Your task to perform on an android device: turn on the 12-hour format for clock Image 0: 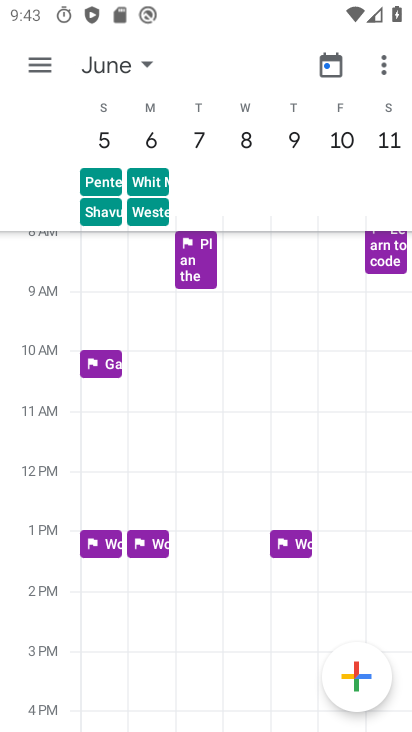
Step 0: press home button
Your task to perform on an android device: turn on the 12-hour format for clock Image 1: 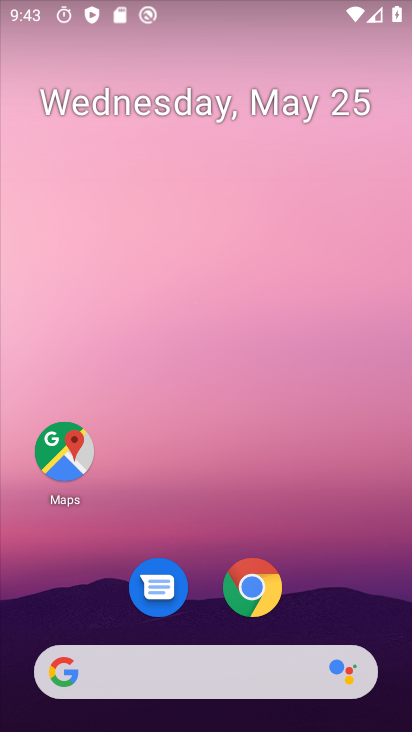
Step 1: drag from (214, 623) to (219, 64)
Your task to perform on an android device: turn on the 12-hour format for clock Image 2: 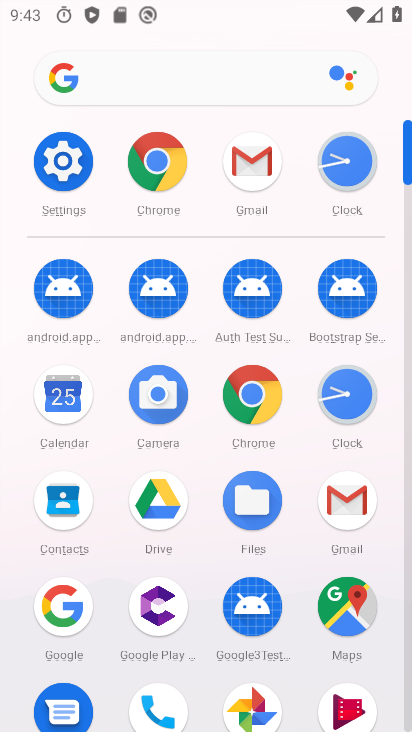
Step 2: click (352, 412)
Your task to perform on an android device: turn on the 12-hour format for clock Image 3: 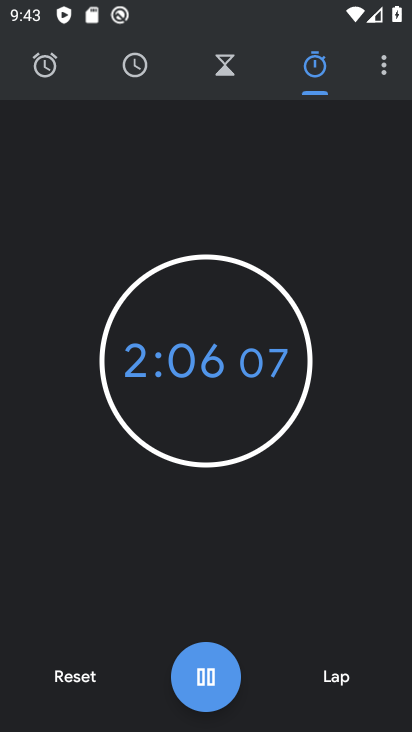
Step 3: click (73, 678)
Your task to perform on an android device: turn on the 12-hour format for clock Image 4: 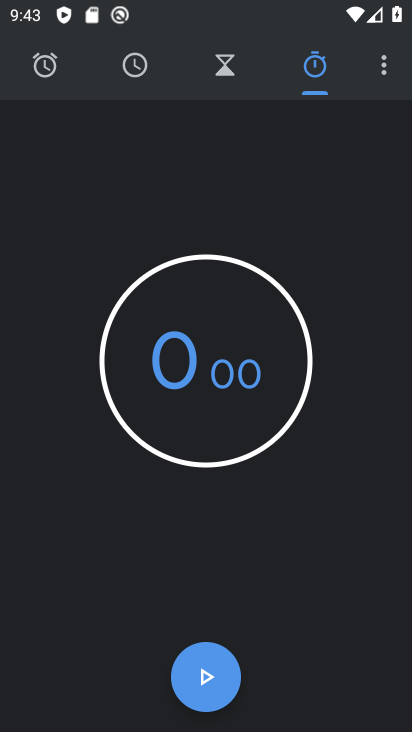
Step 4: press home button
Your task to perform on an android device: turn on the 12-hour format for clock Image 5: 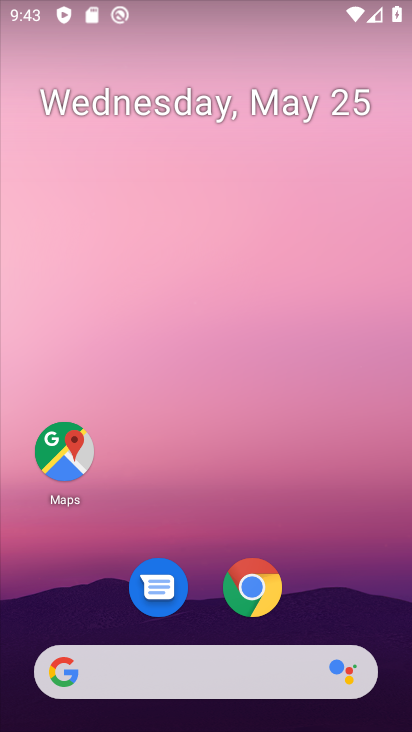
Step 5: drag from (191, 602) to (268, 7)
Your task to perform on an android device: turn on the 12-hour format for clock Image 6: 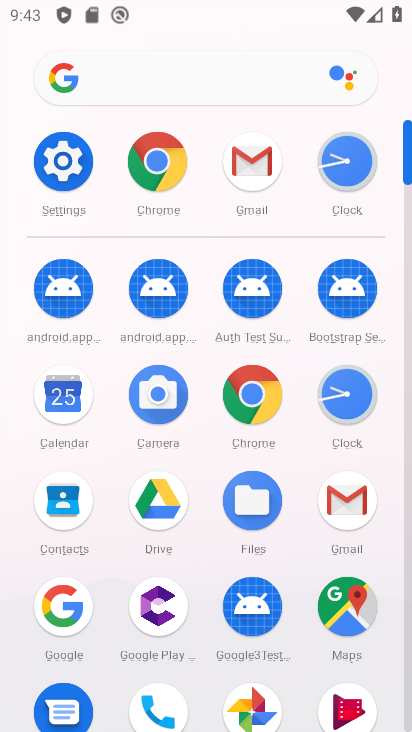
Step 6: click (66, 165)
Your task to perform on an android device: turn on the 12-hour format for clock Image 7: 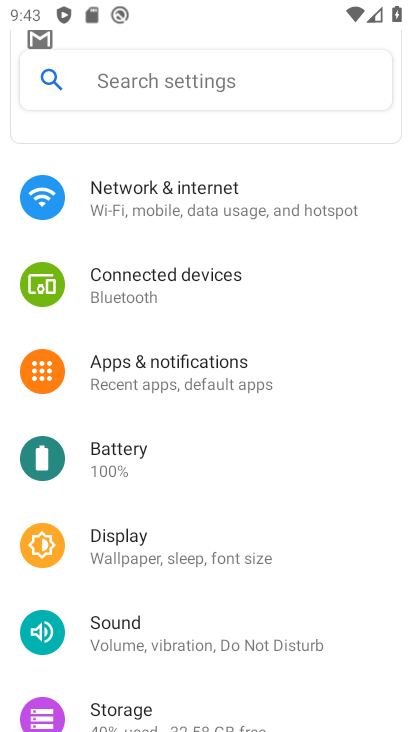
Step 7: drag from (200, 597) to (199, 228)
Your task to perform on an android device: turn on the 12-hour format for clock Image 8: 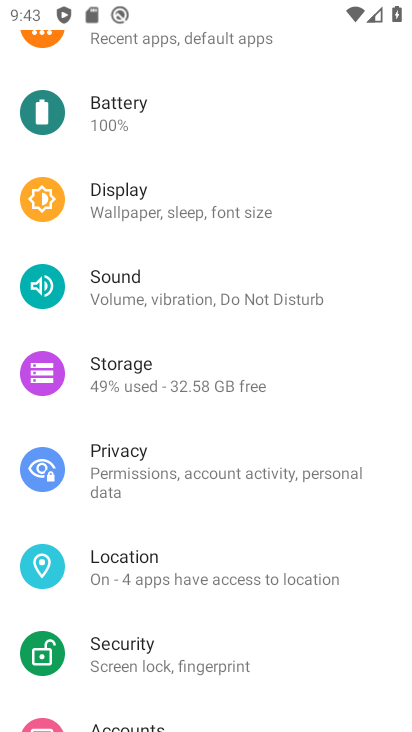
Step 8: drag from (165, 541) to (236, 131)
Your task to perform on an android device: turn on the 12-hour format for clock Image 9: 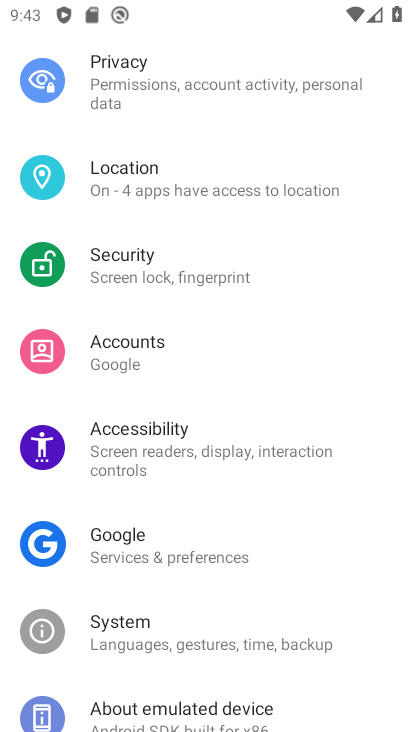
Step 9: drag from (252, 617) to (305, 343)
Your task to perform on an android device: turn on the 12-hour format for clock Image 10: 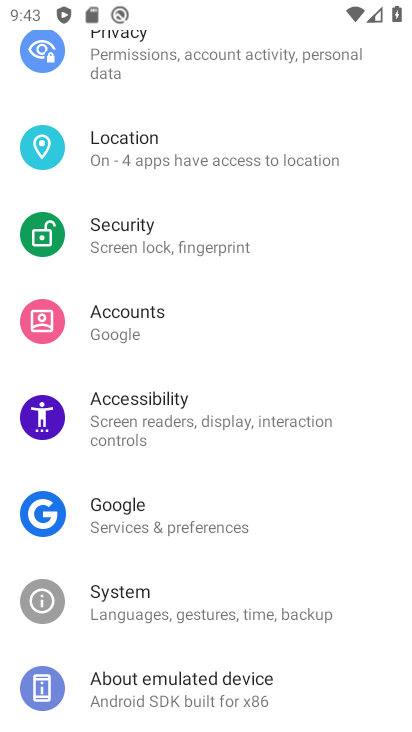
Step 10: click (171, 619)
Your task to perform on an android device: turn on the 12-hour format for clock Image 11: 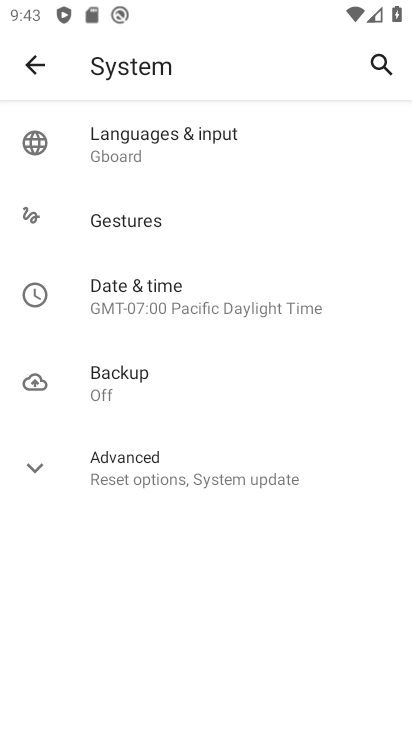
Step 11: click (241, 289)
Your task to perform on an android device: turn on the 12-hour format for clock Image 12: 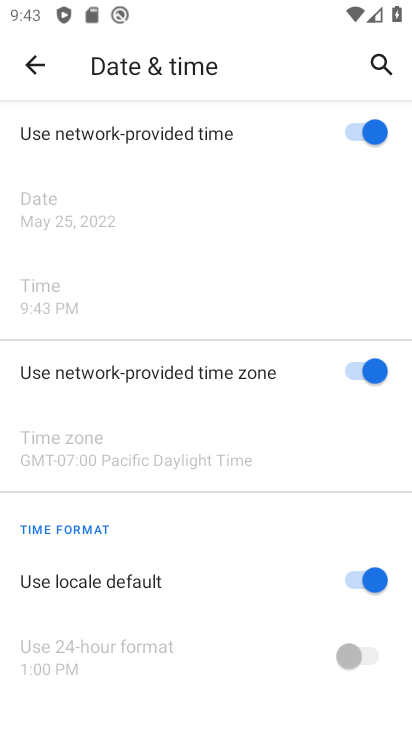
Step 12: task complete